Your task to perform on an android device: make emails show in primary in the gmail app Image 0: 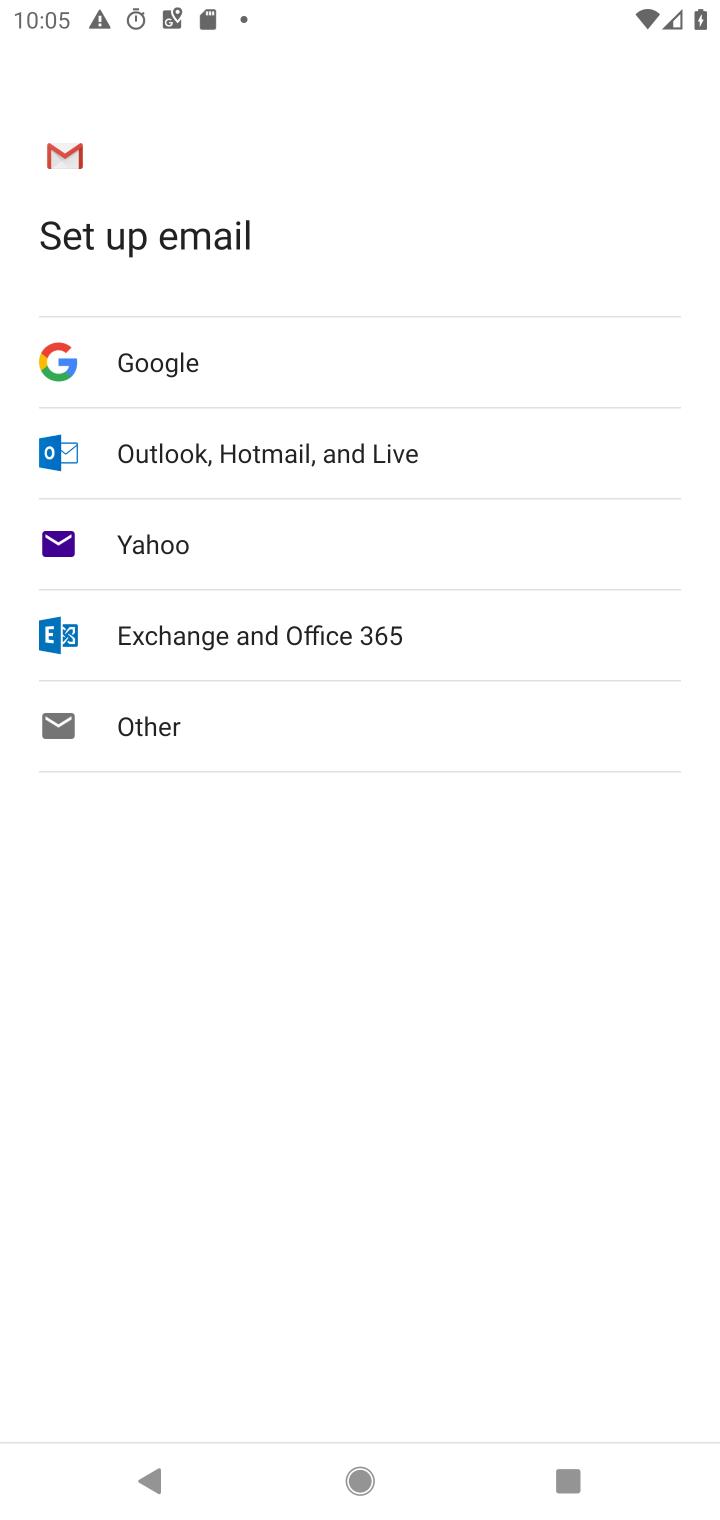
Step 0: press home button
Your task to perform on an android device: make emails show in primary in the gmail app Image 1: 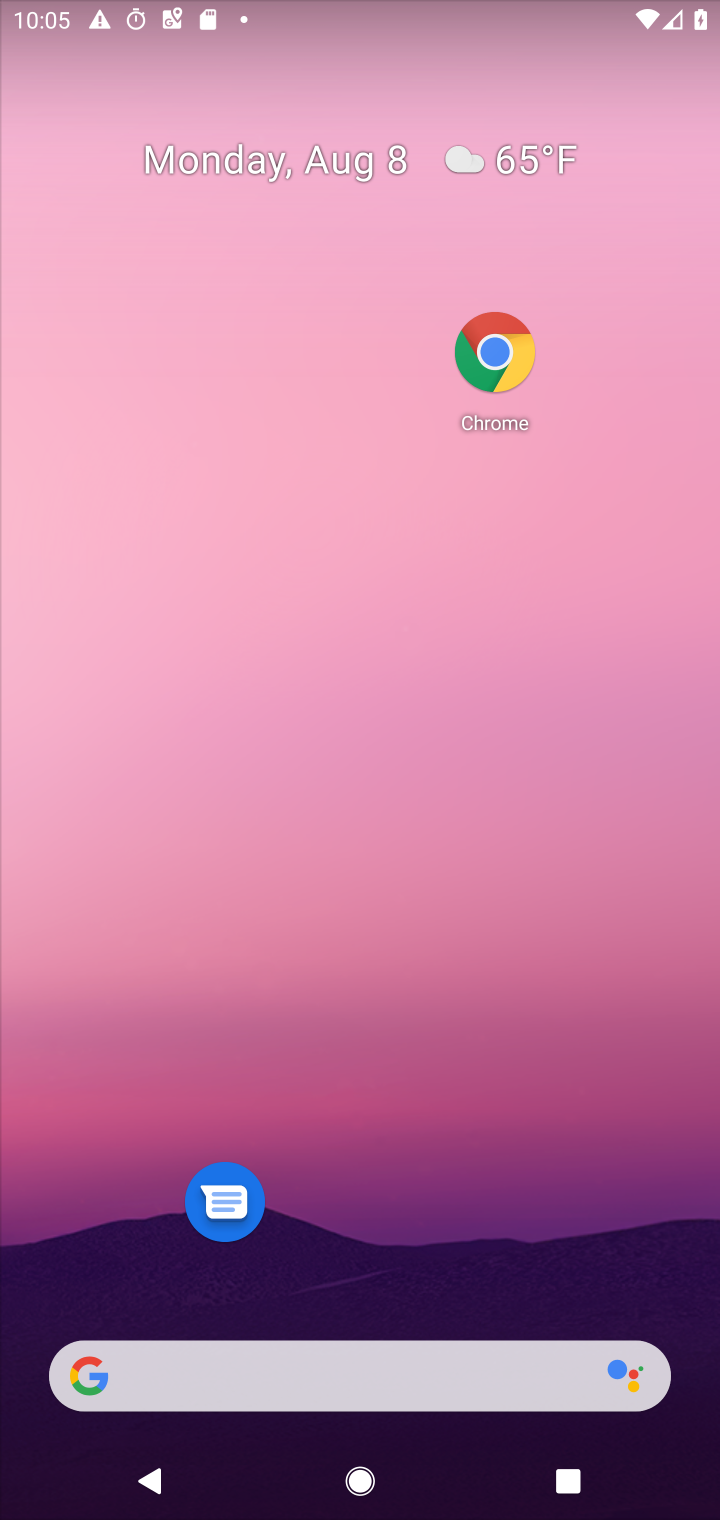
Step 1: drag from (335, 1097) to (388, 416)
Your task to perform on an android device: make emails show in primary in the gmail app Image 2: 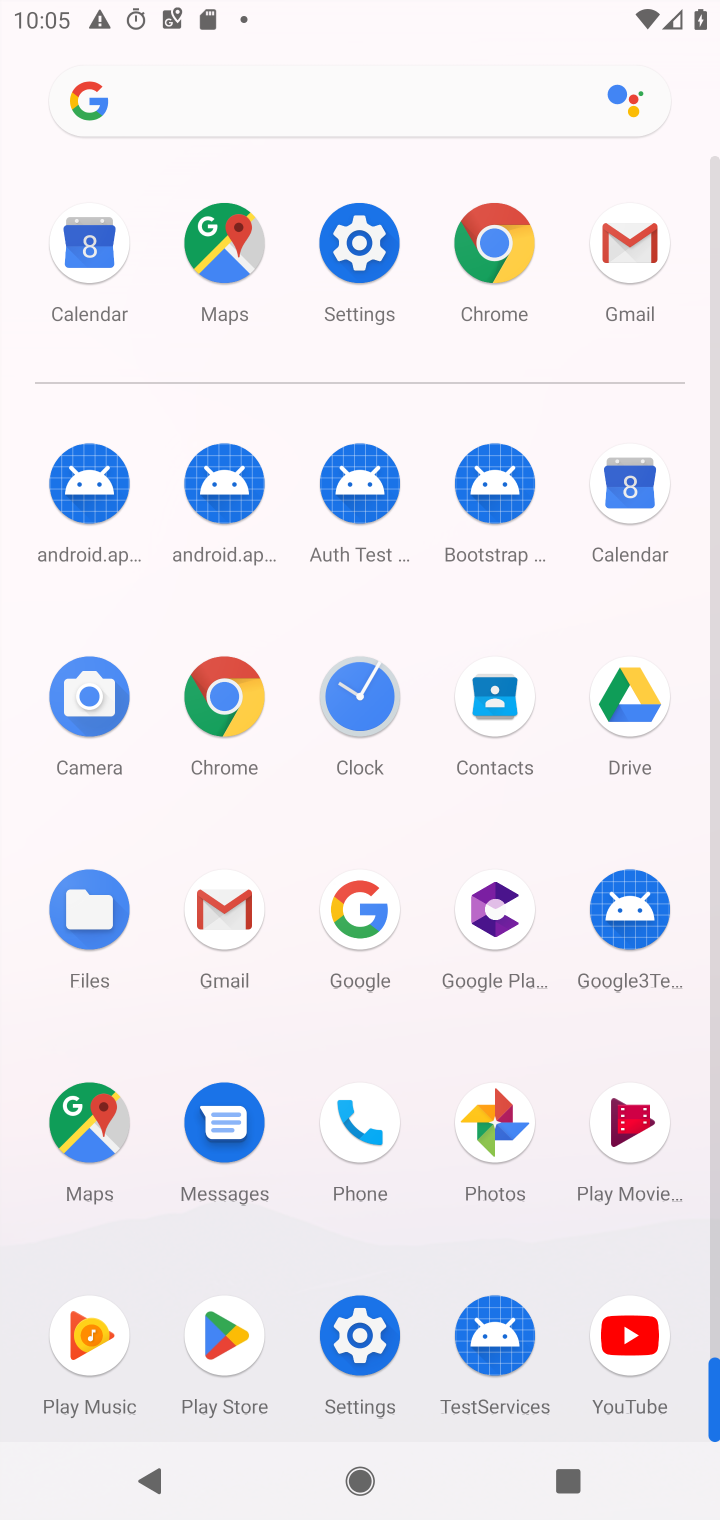
Step 2: click (658, 278)
Your task to perform on an android device: make emails show in primary in the gmail app Image 3: 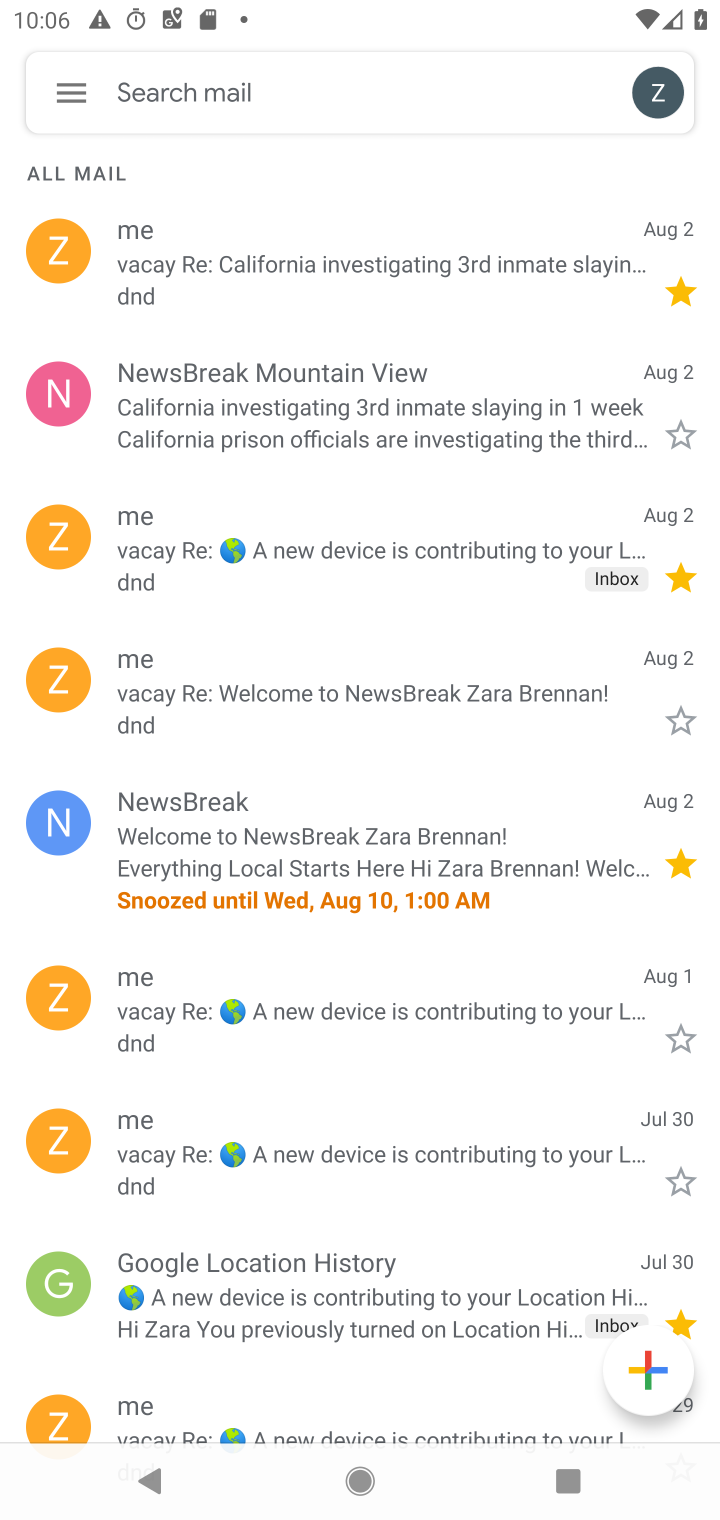
Step 3: click (76, 102)
Your task to perform on an android device: make emails show in primary in the gmail app Image 4: 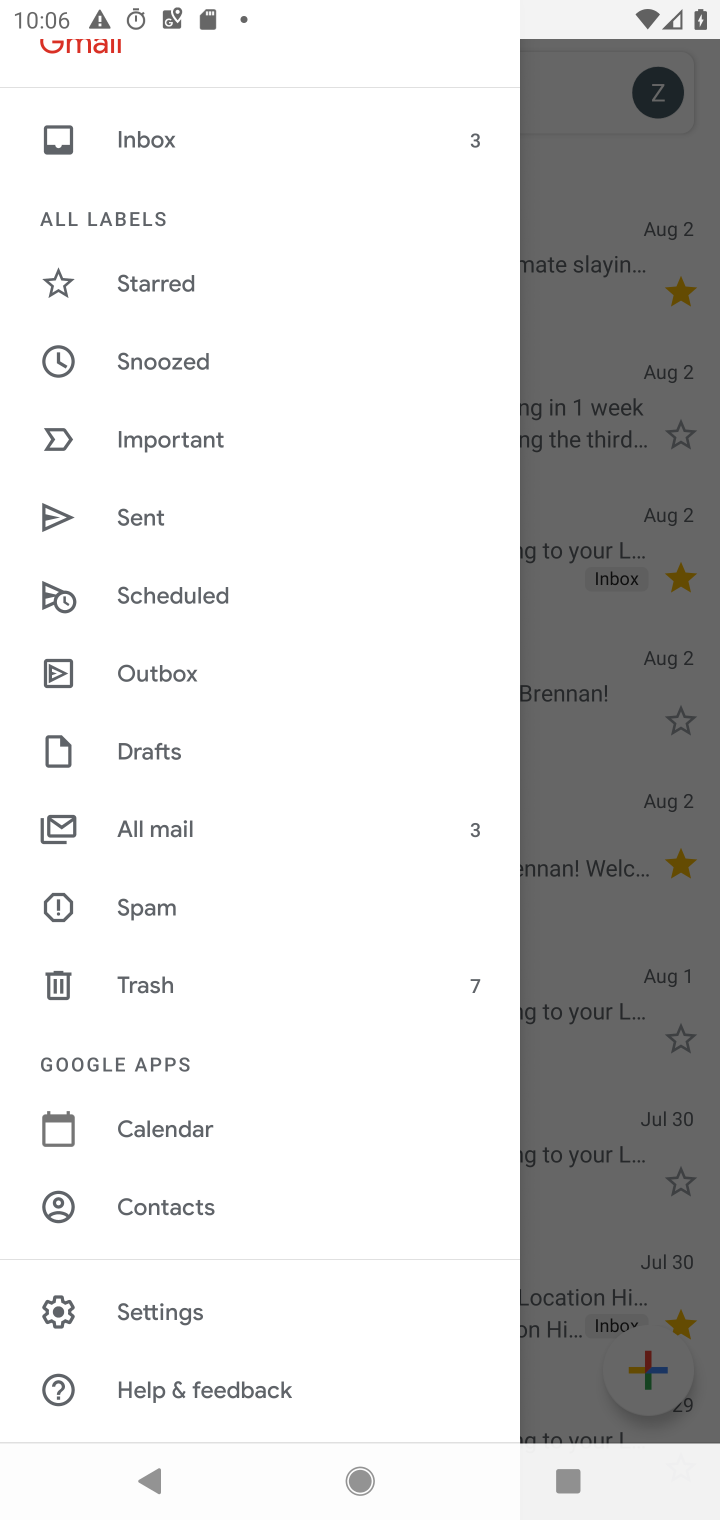
Step 4: click (174, 1303)
Your task to perform on an android device: make emails show in primary in the gmail app Image 5: 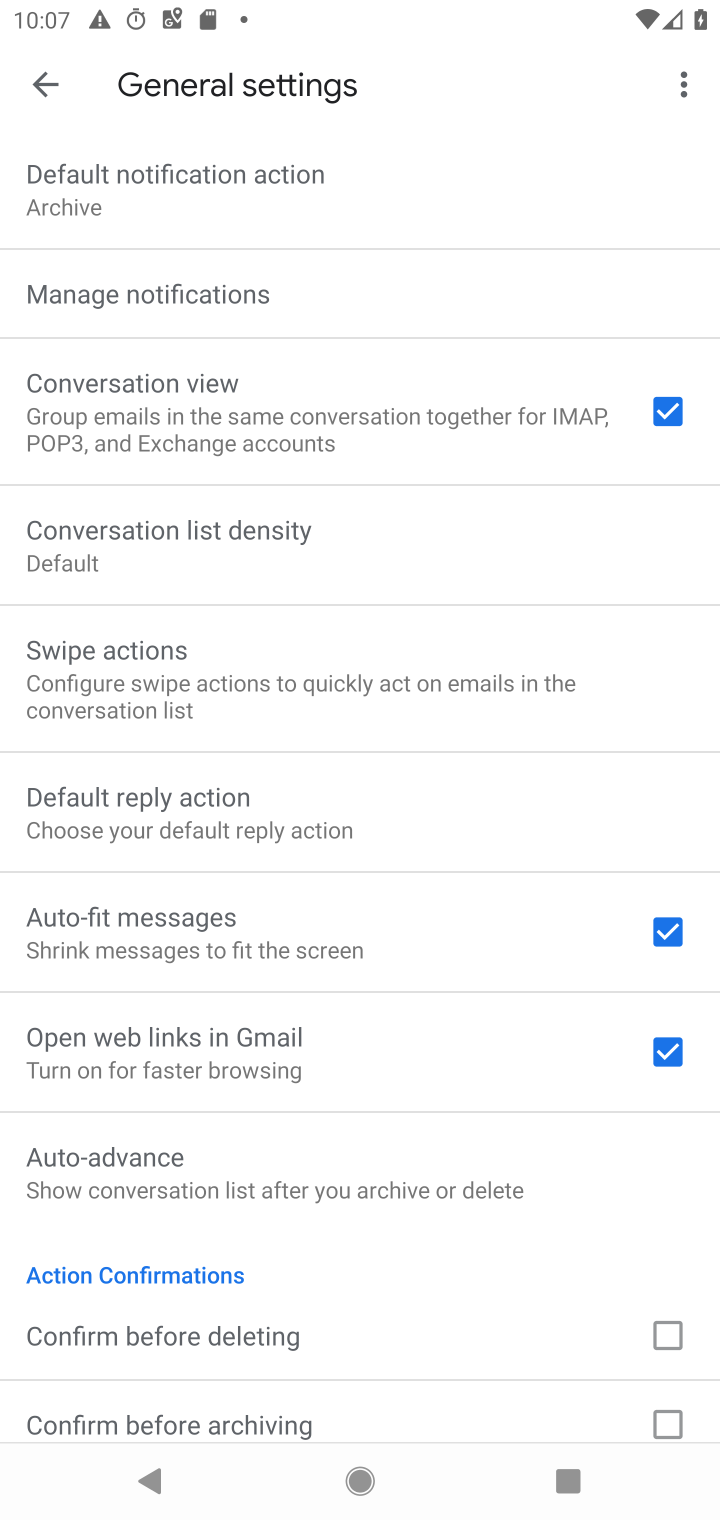
Step 5: click (37, 84)
Your task to perform on an android device: make emails show in primary in the gmail app Image 6: 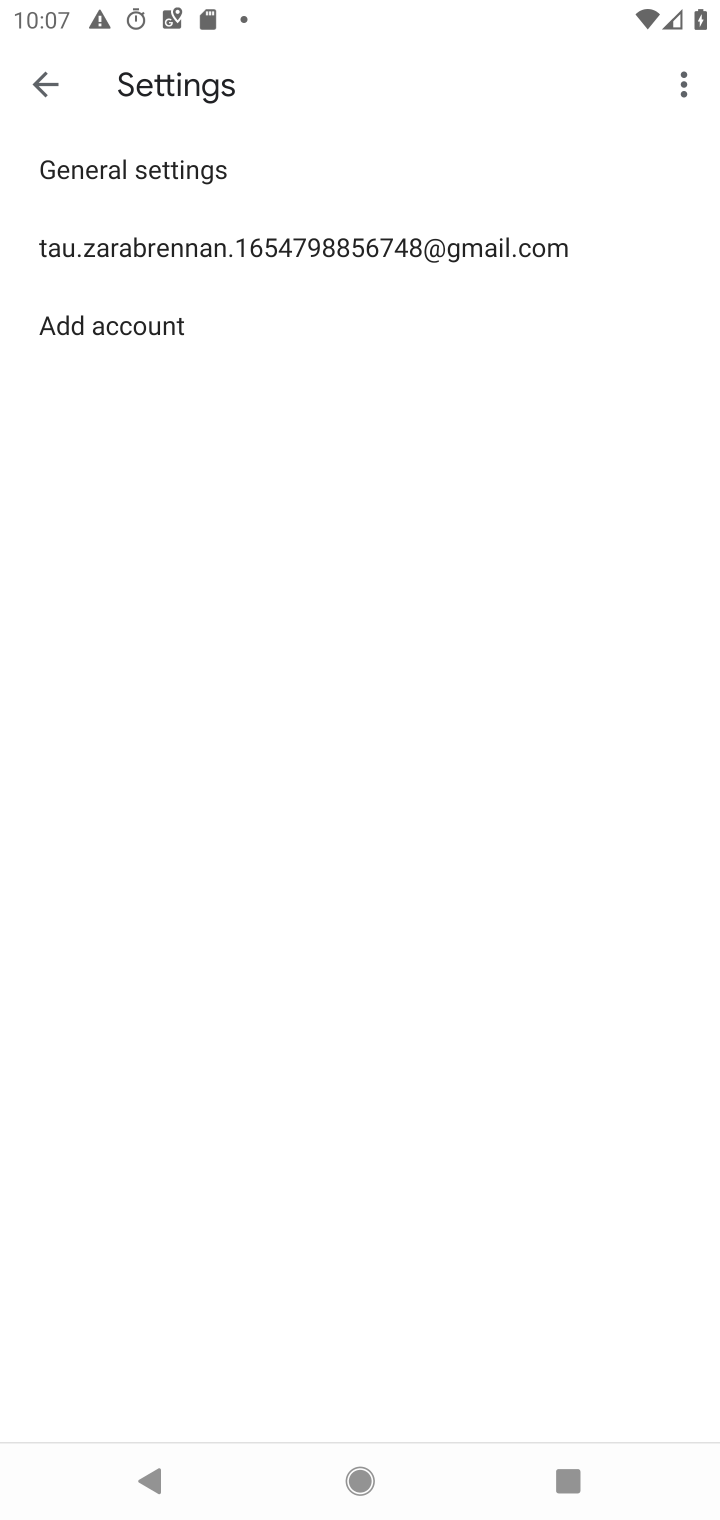
Step 6: click (198, 253)
Your task to perform on an android device: make emails show in primary in the gmail app Image 7: 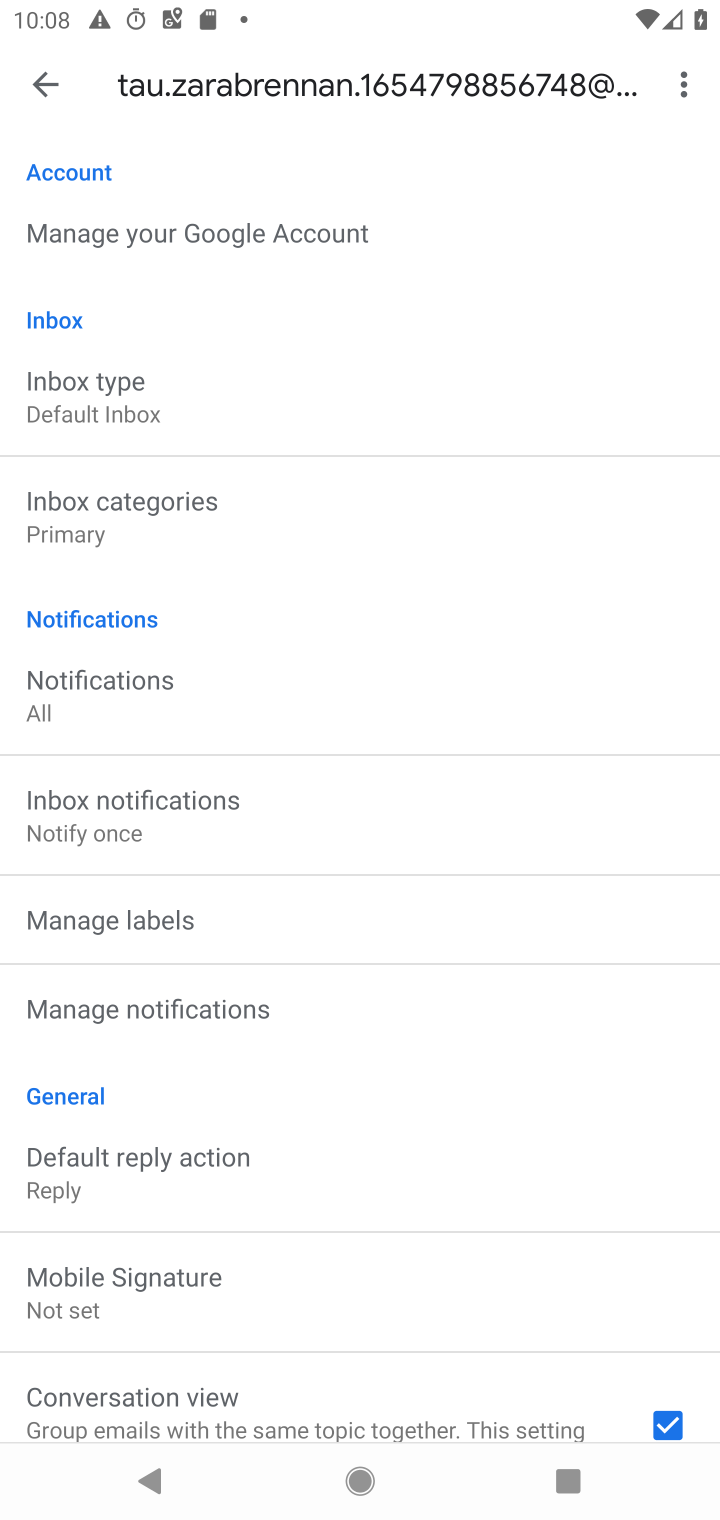
Step 7: task complete